Your task to perform on an android device: Search for sushi restaurants on Maps Image 0: 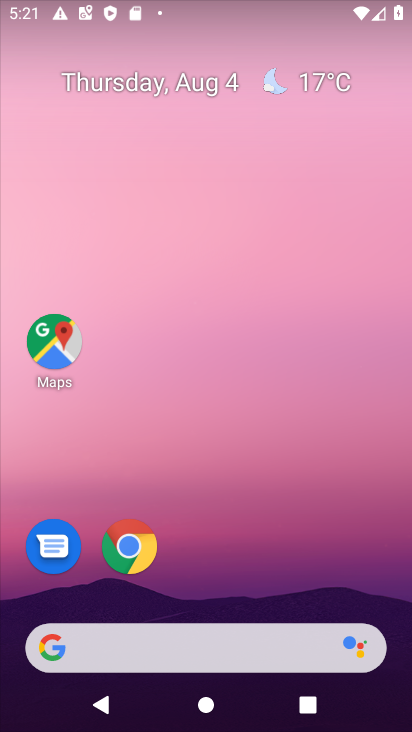
Step 0: click (71, 324)
Your task to perform on an android device: Search for sushi restaurants on Maps Image 1: 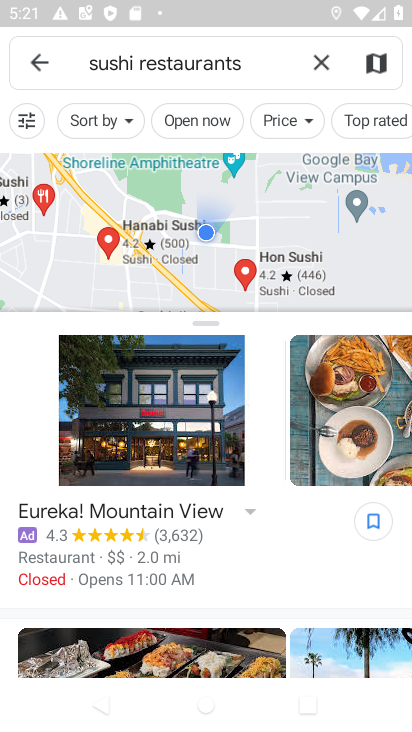
Step 1: task complete